Your task to perform on an android device: turn on improve location accuracy Image 0: 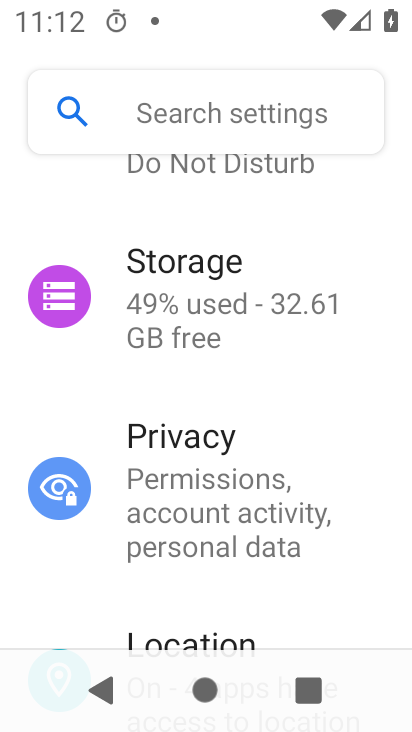
Step 0: drag from (221, 589) to (253, 1)
Your task to perform on an android device: turn on improve location accuracy Image 1: 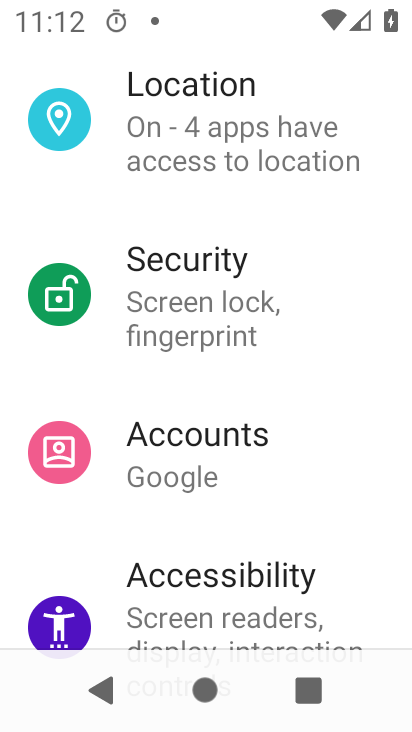
Step 1: drag from (229, 527) to (271, 41)
Your task to perform on an android device: turn on improve location accuracy Image 2: 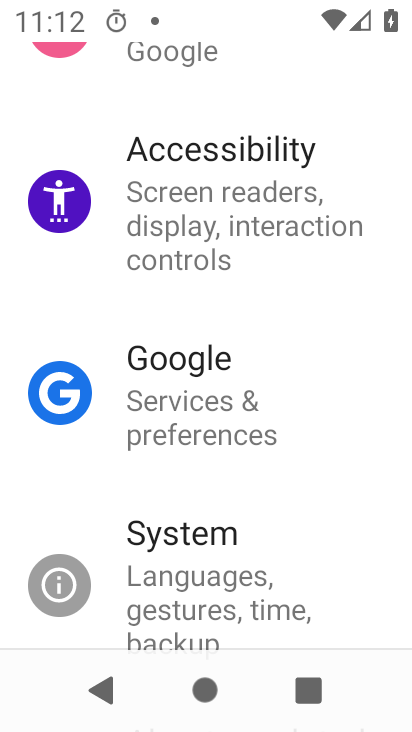
Step 2: drag from (219, 587) to (265, 565)
Your task to perform on an android device: turn on improve location accuracy Image 3: 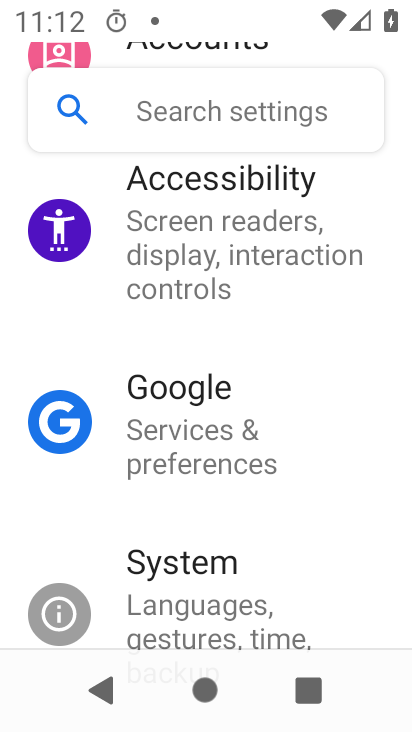
Step 3: drag from (259, 290) to (240, 500)
Your task to perform on an android device: turn on improve location accuracy Image 4: 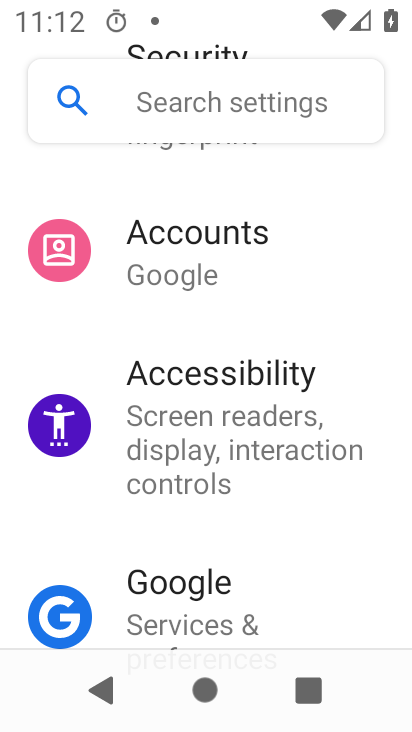
Step 4: drag from (221, 251) to (241, 586)
Your task to perform on an android device: turn on improve location accuracy Image 5: 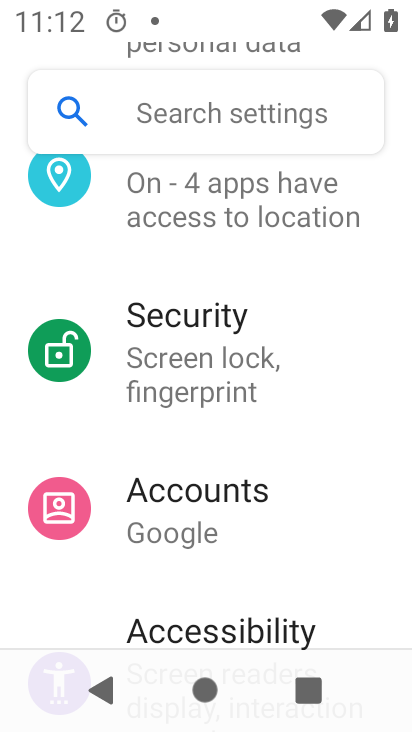
Step 5: drag from (229, 382) to (236, 660)
Your task to perform on an android device: turn on improve location accuracy Image 6: 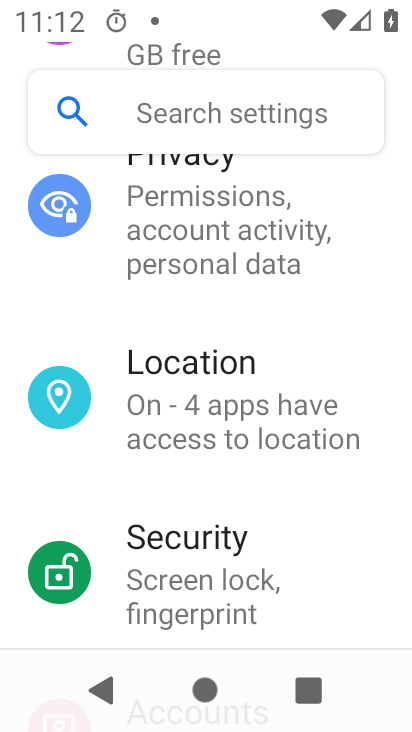
Step 6: click (225, 411)
Your task to perform on an android device: turn on improve location accuracy Image 7: 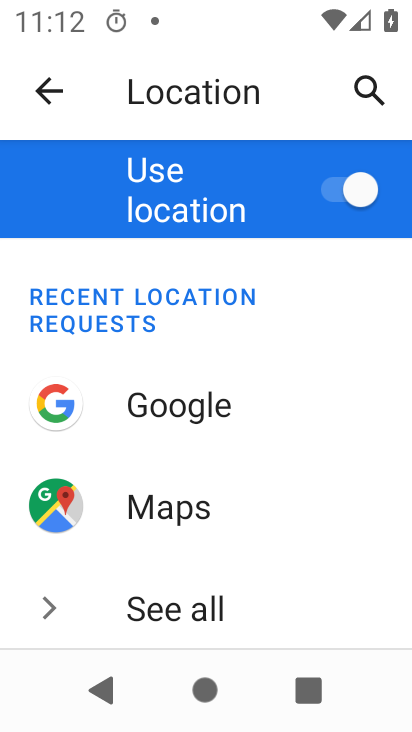
Step 7: drag from (222, 564) to (249, 87)
Your task to perform on an android device: turn on improve location accuracy Image 8: 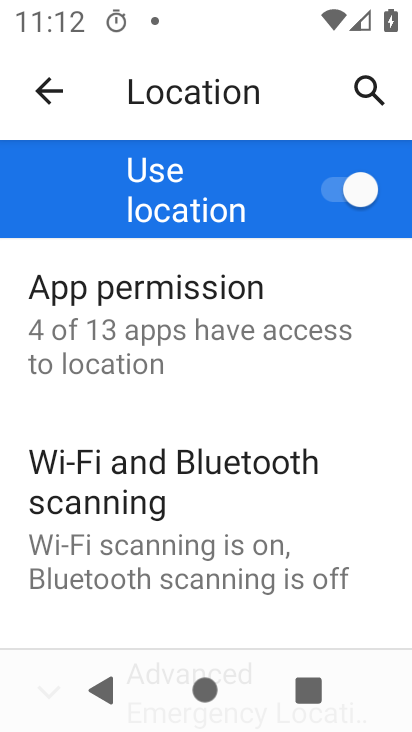
Step 8: drag from (170, 583) to (224, 64)
Your task to perform on an android device: turn on improve location accuracy Image 9: 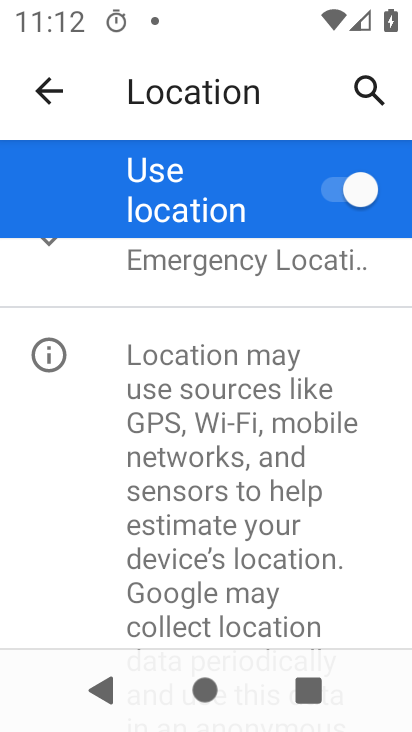
Step 9: click (201, 254)
Your task to perform on an android device: turn on improve location accuracy Image 10: 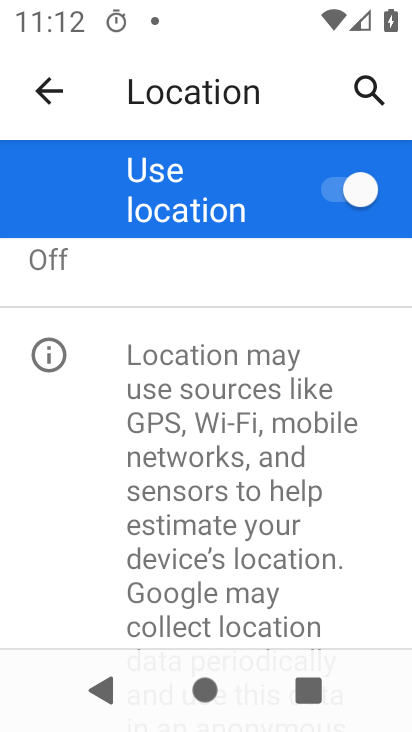
Step 10: drag from (152, 353) to (155, 629)
Your task to perform on an android device: turn on improve location accuracy Image 11: 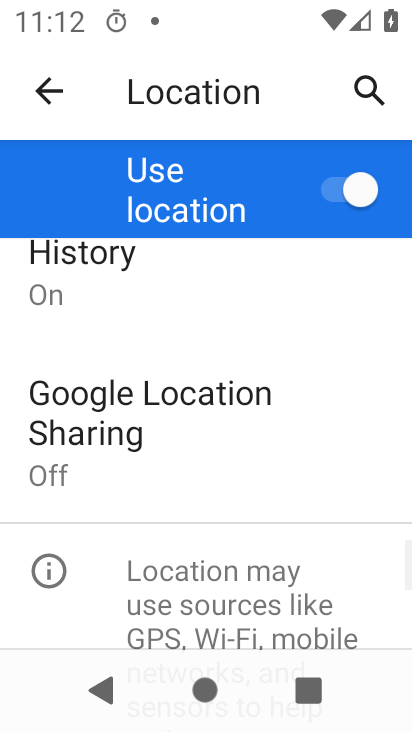
Step 11: drag from (153, 352) to (156, 577)
Your task to perform on an android device: turn on improve location accuracy Image 12: 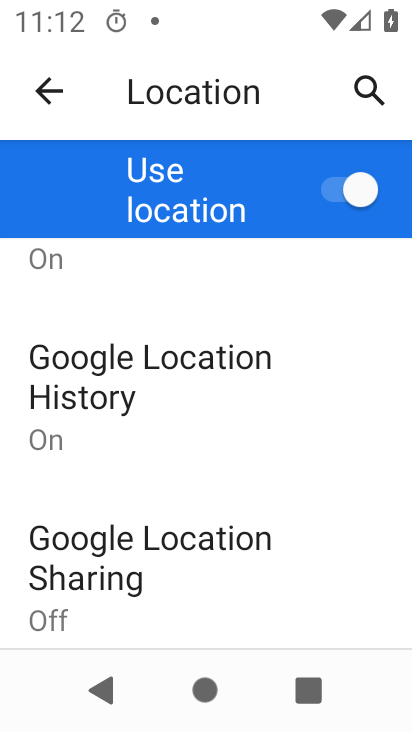
Step 12: drag from (145, 361) to (148, 515)
Your task to perform on an android device: turn on improve location accuracy Image 13: 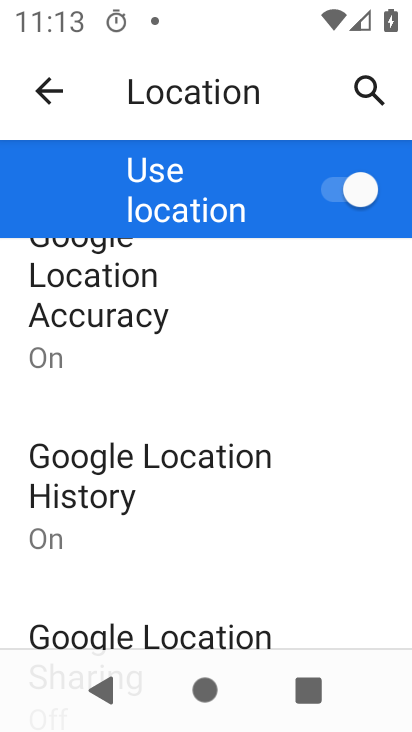
Step 13: click (128, 316)
Your task to perform on an android device: turn on improve location accuracy Image 14: 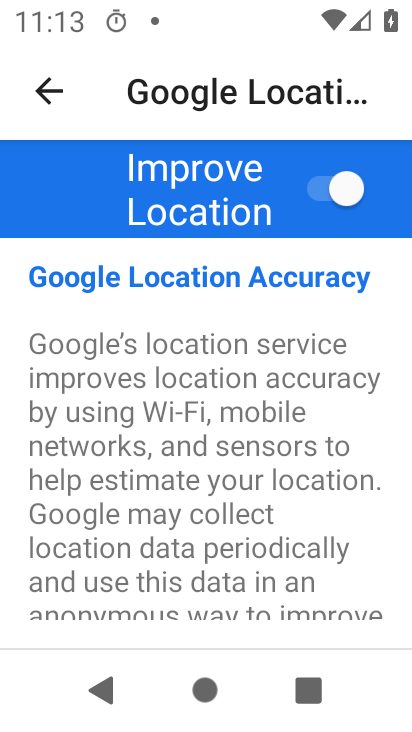
Step 14: task complete